Your task to perform on an android device: turn off location history Image 0: 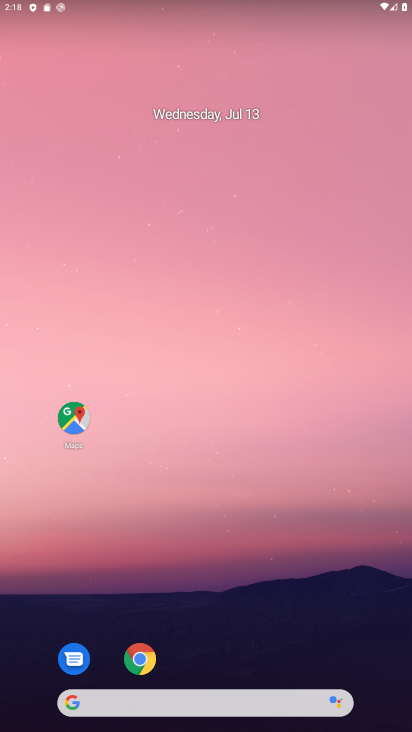
Step 0: drag from (209, 666) to (200, 32)
Your task to perform on an android device: turn off location history Image 1: 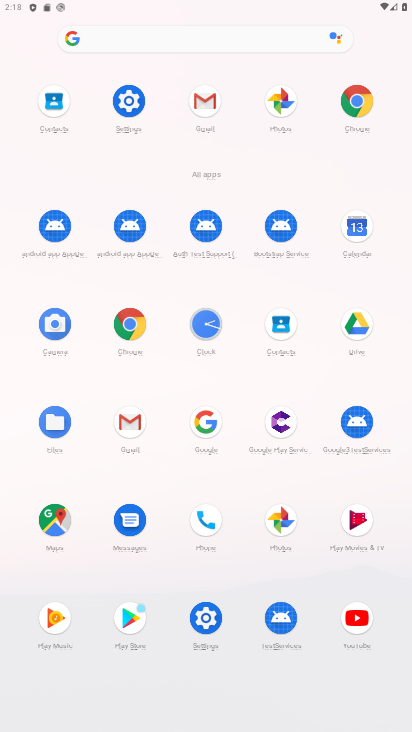
Step 1: click (127, 95)
Your task to perform on an android device: turn off location history Image 2: 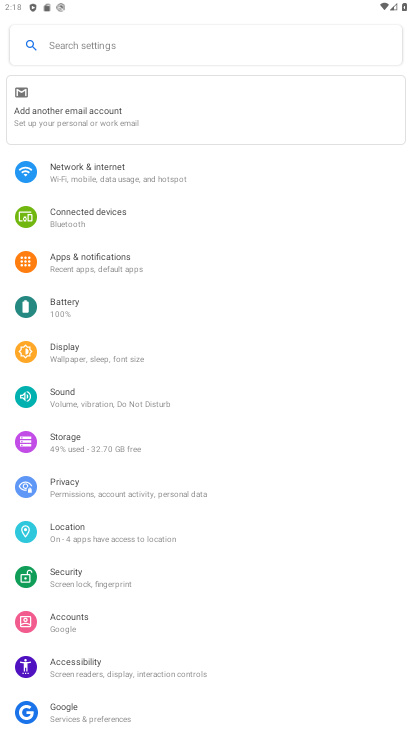
Step 2: click (87, 533)
Your task to perform on an android device: turn off location history Image 3: 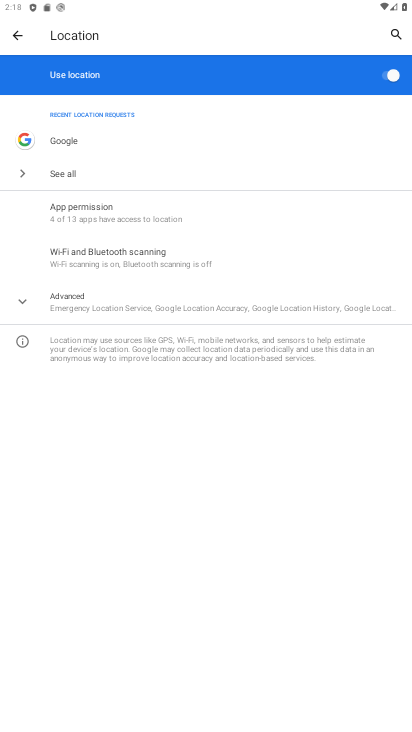
Step 3: click (28, 296)
Your task to perform on an android device: turn off location history Image 4: 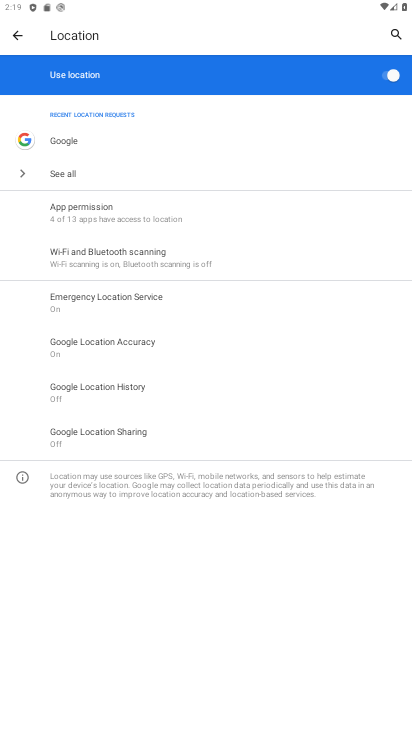
Step 4: click (109, 392)
Your task to perform on an android device: turn off location history Image 5: 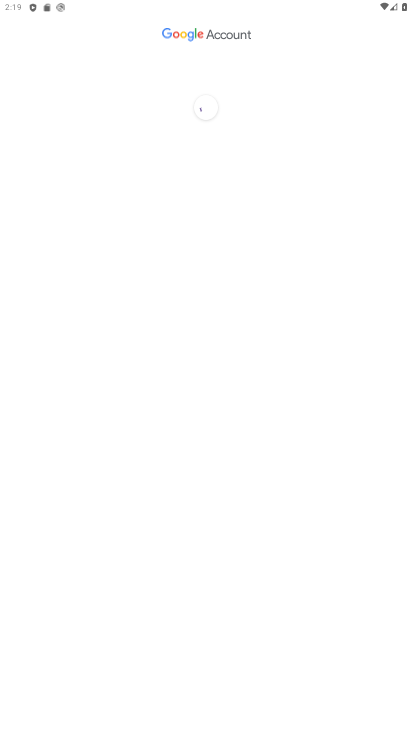
Step 5: task complete